Your task to perform on an android device: stop showing notifications on the lock screen Image 0: 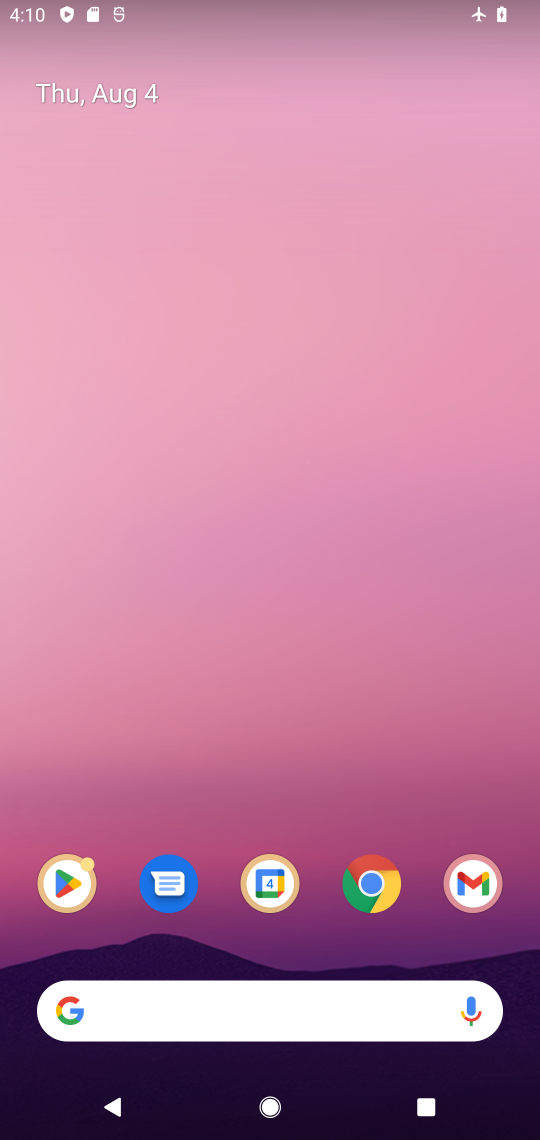
Step 0: drag from (455, 817) to (132, 86)
Your task to perform on an android device: stop showing notifications on the lock screen Image 1: 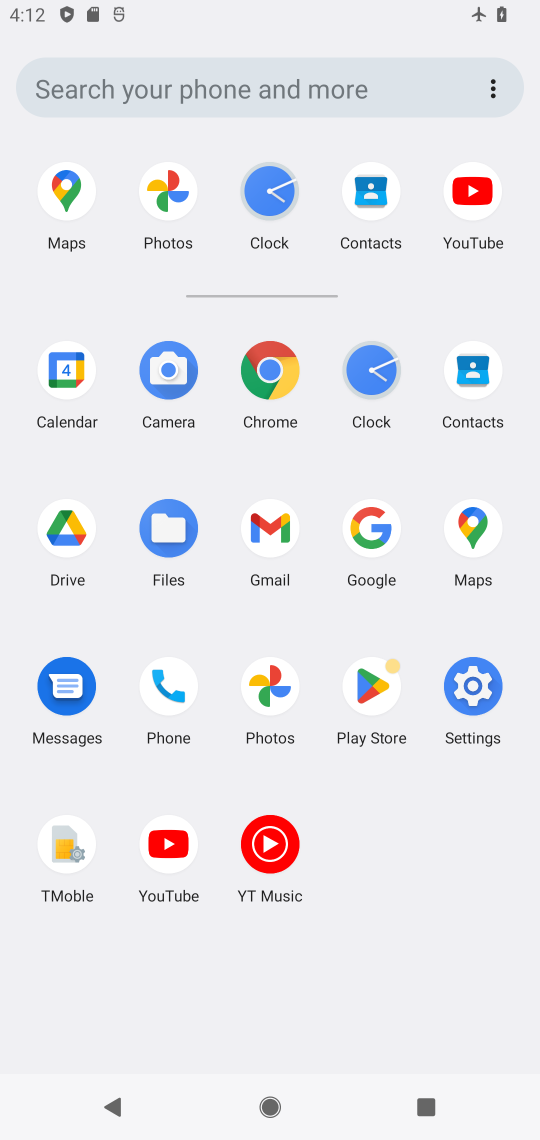
Step 1: click (437, 677)
Your task to perform on an android device: stop showing notifications on the lock screen Image 2: 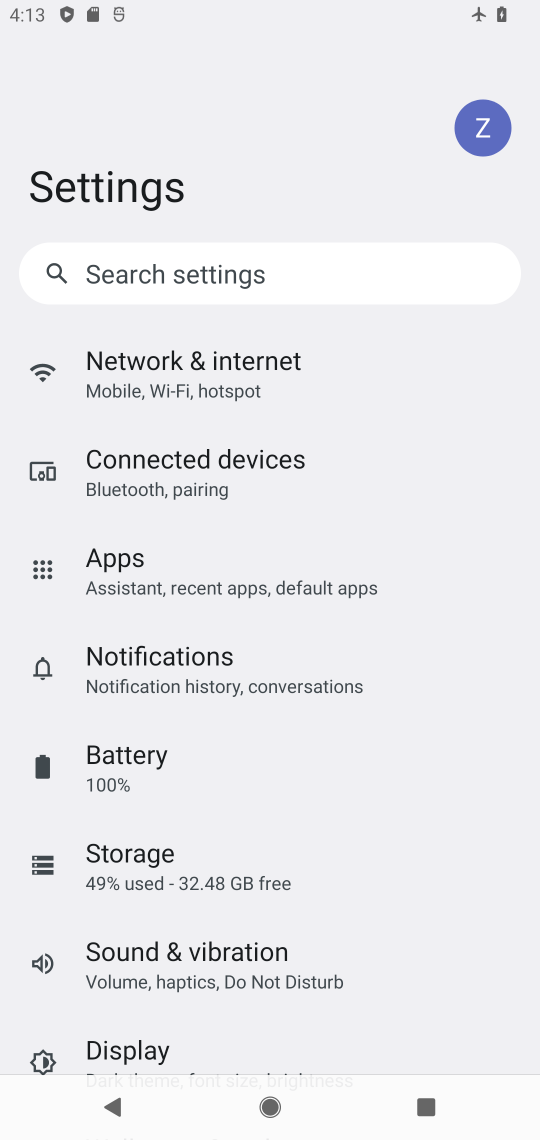
Step 2: click (135, 664)
Your task to perform on an android device: stop showing notifications on the lock screen Image 3: 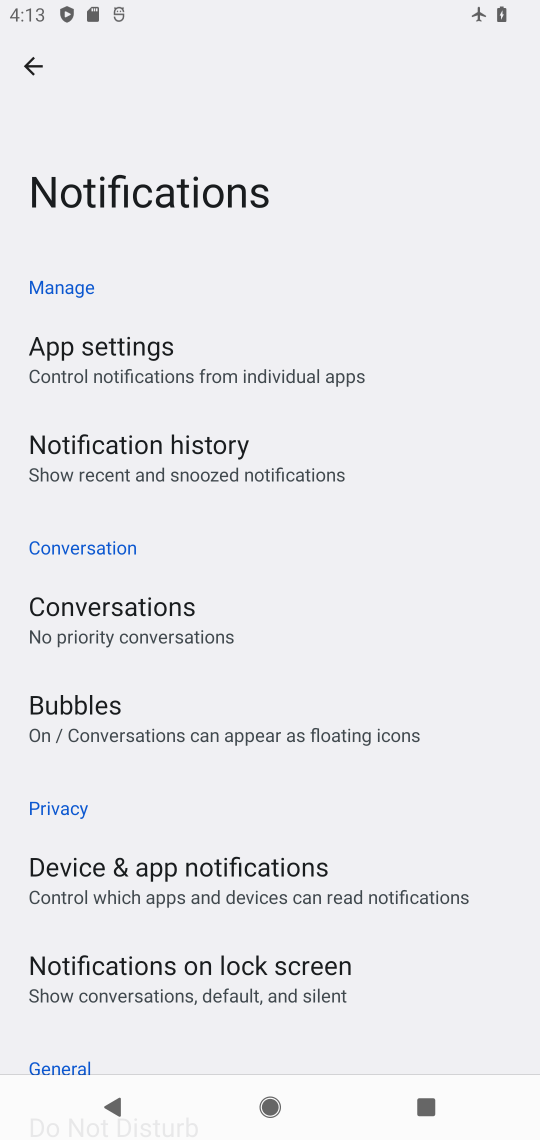
Step 3: click (231, 979)
Your task to perform on an android device: stop showing notifications on the lock screen Image 4: 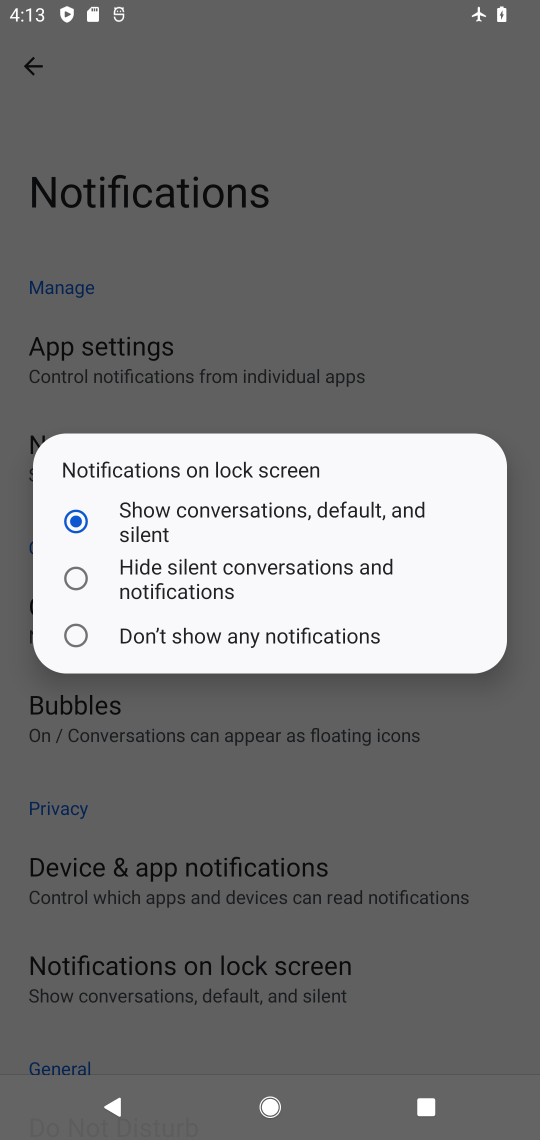
Step 4: click (117, 647)
Your task to perform on an android device: stop showing notifications on the lock screen Image 5: 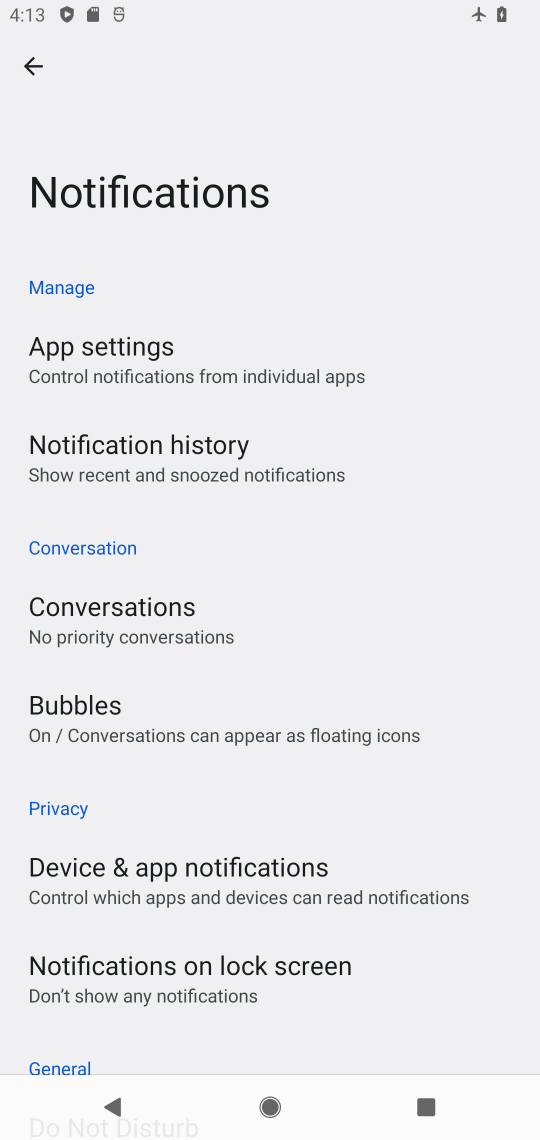
Step 5: task complete